Your task to perform on an android device: turn pop-ups on in chrome Image 0: 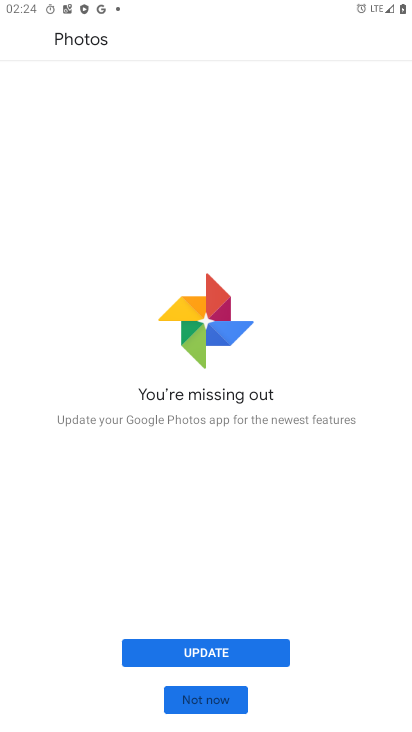
Step 0: press home button
Your task to perform on an android device: turn pop-ups on in chrome Image 1: 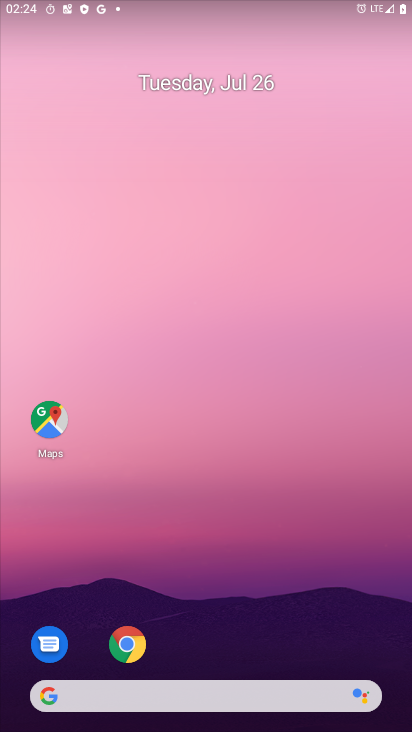
Step 1: click (133, 648)
Your task to perform on an android device: turn pop-ups on in chrome Image 2: 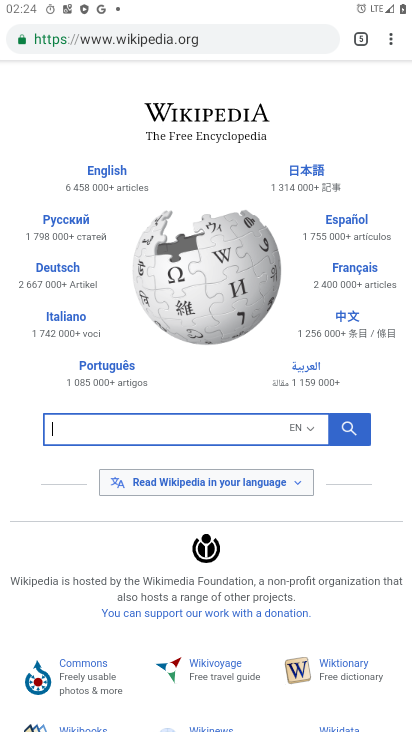
Step 2: click (387, 39)
Your task to perform on an android device: turn pop-ups on in chrome Image 3: 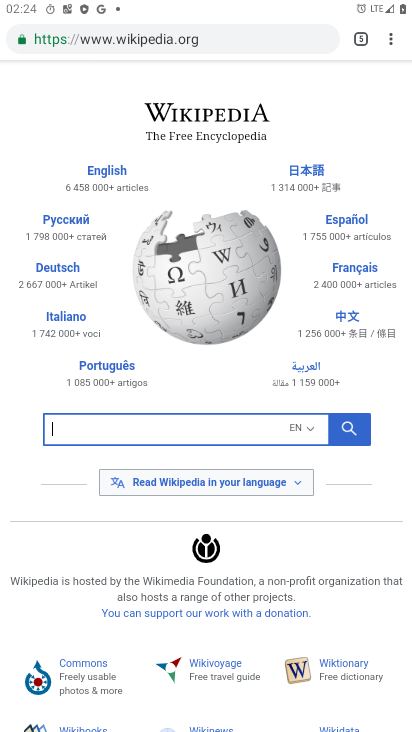
Step 3: click (391, 39)
Your task to perform on an android device: turn pop-ups on in chrome Image 4: 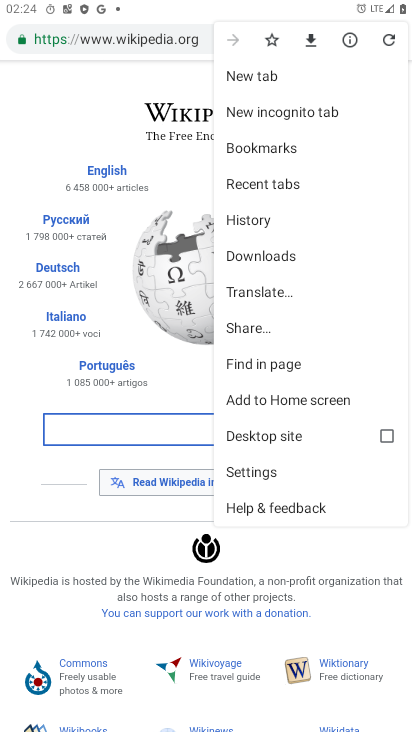
Step 4: click (250, 470)
Your task to perform on an android device: turn pop-ups on in chrome Image 5: 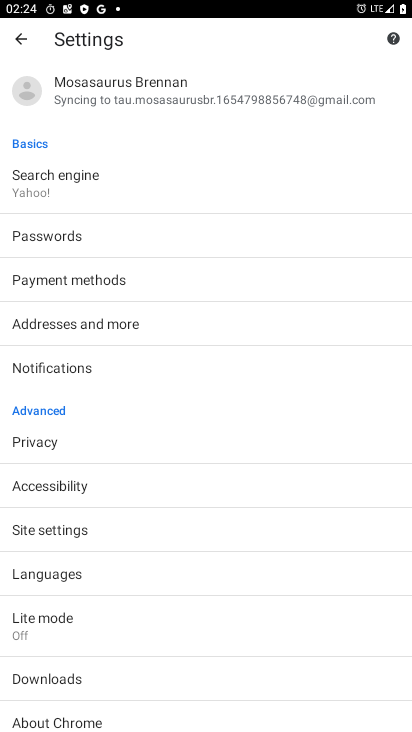
Step 5: click (37, 534)
Your task to perform on an android device: turn pop-ups on in chrome Image 6: 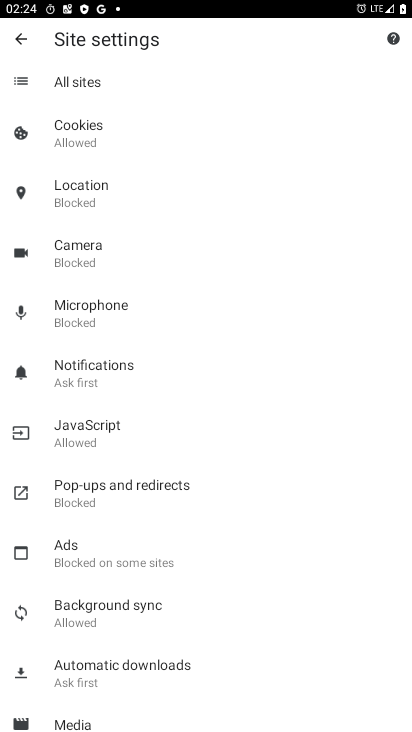
Step 6: click (66, 488)
Your task to perform on an android device: turn pop-ups on in chrome Image 7: 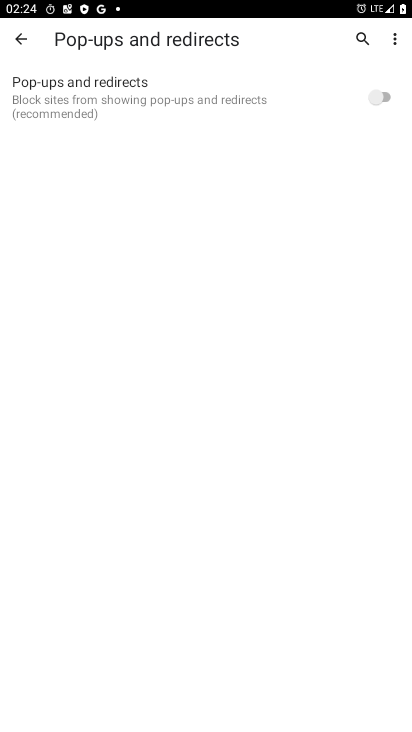
Step 7: click (374, 101)
Your task to perform on an android device: turn pop-ups on in chrome Image 8: 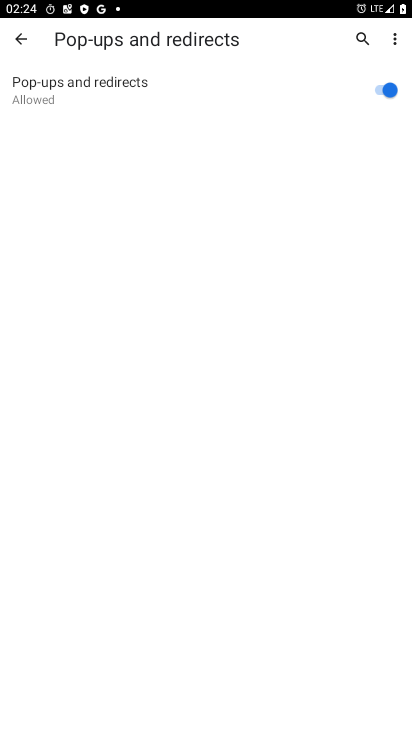
Step 8: task complete